Your task to perform on an android device: find which apps use the phone's location Image 0: 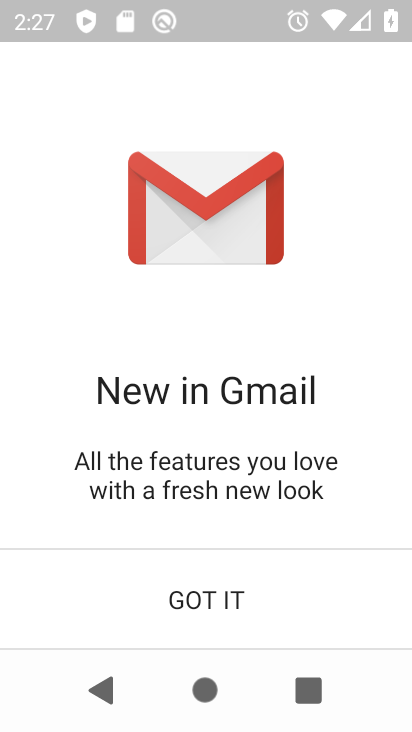
Step 0: press home button
Your task to perform on an android device: find which apps use the phone's location Image 1: 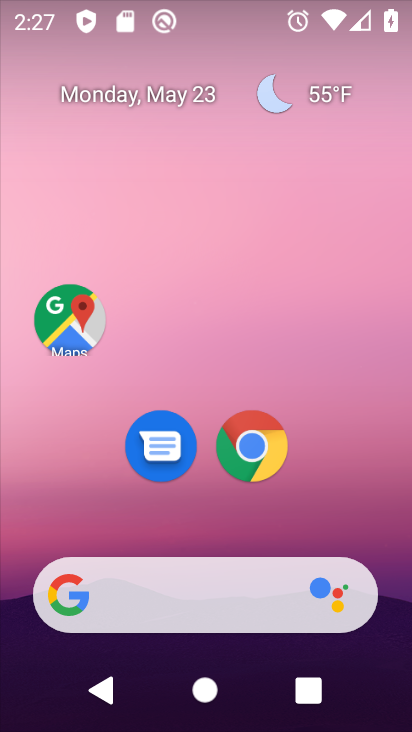
Step 1: drag from (192, 532) to (194, 149)
Your task to perform on an android device: find which apps use the phone's location Image 2: 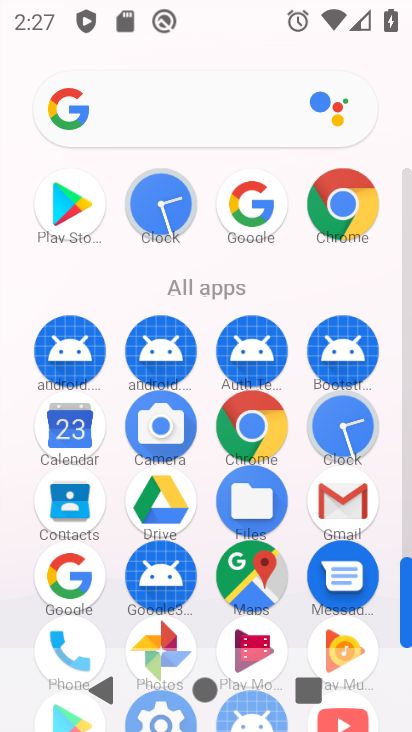
Step 2: drag from (199, 545) to (175, 234)
Your task to perform on an android device: find which apps use the phone's location Image 3: 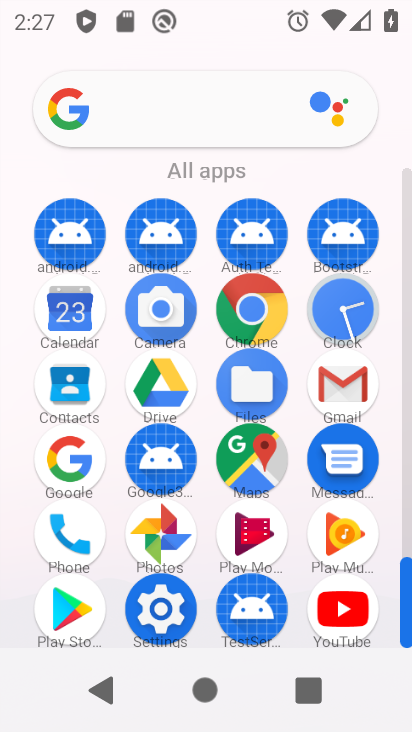
Step 3: click (172, 610)
Your task to perform on an android device: find which apps use the phone's location Image 4: 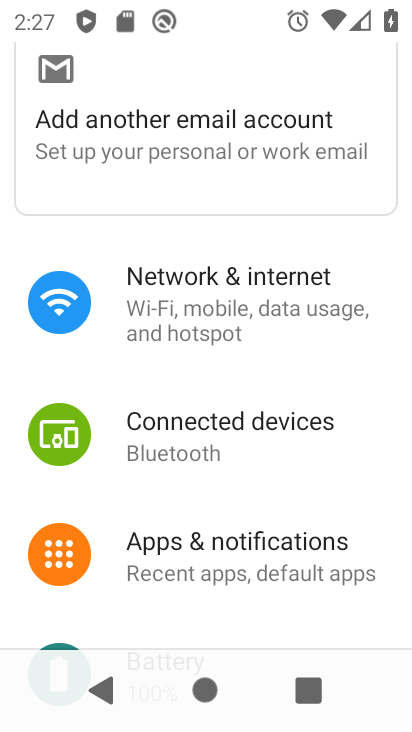
Step 4: drag from (279, 556) to (239, 279)
Your task to perform on an android device: find which apps use the phone's location Image 5: 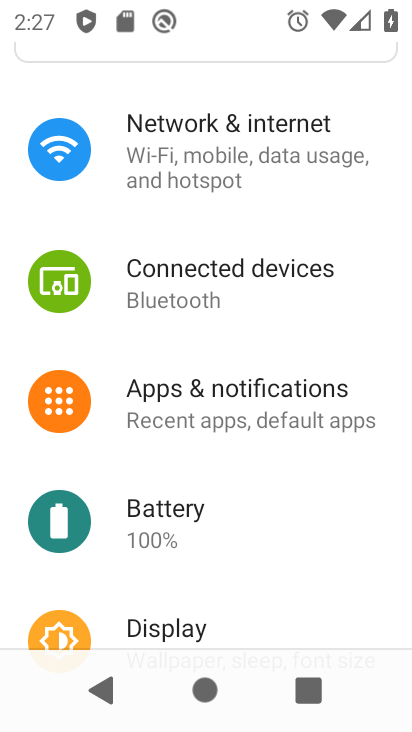
Step 5: drag from (220, 575) to (217, 341)
Your task to perform on an android device: find which apps use the phone's location Image 6: 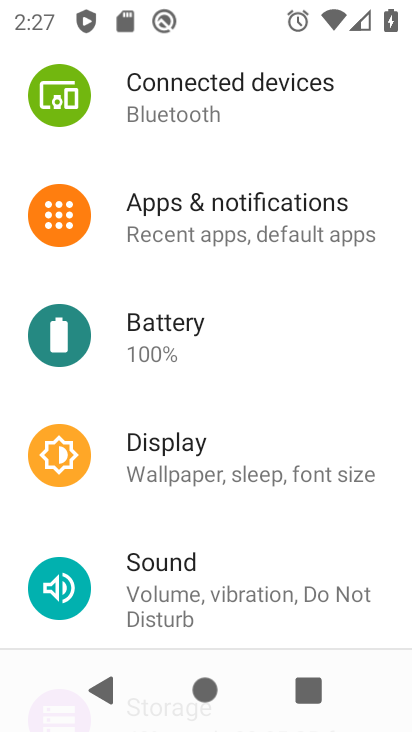
Step 6: drag from (199, 588) to (208, 358)
Your task to perform on an android device: find which apps use the phone's location Image 7: 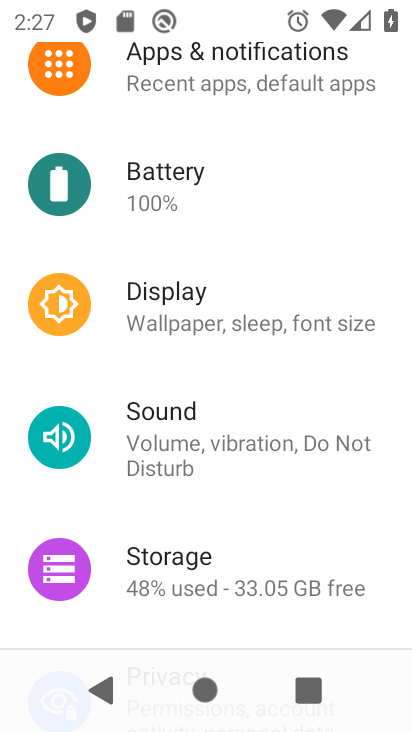
Step 7: drag from (208, 550) to (214, 371)
Your task to perform on an android device: find which apps use the phone's location Image 8: 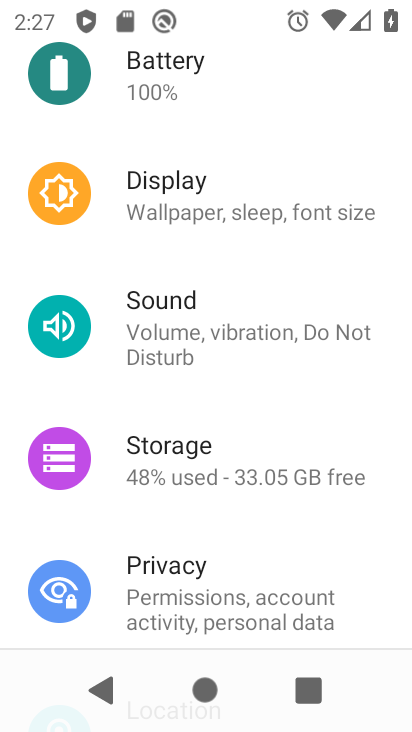
Step 8: drag from (214, 578) to (250, 309)
Your task to perform on an android device: find which apps use the phone's location Image 9: 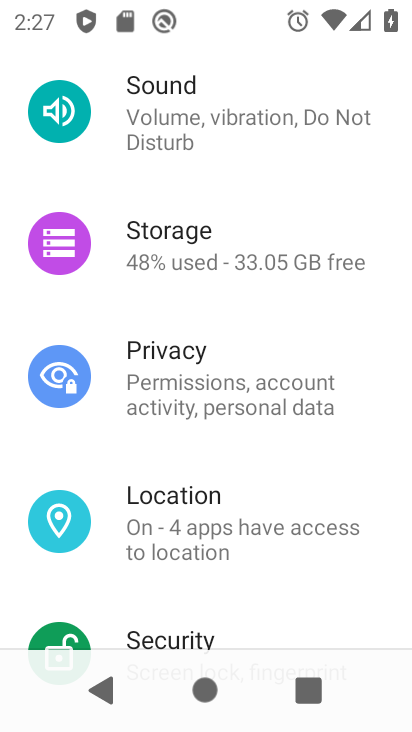
Step 9: click (257, 512)
Your task to perform on an android device: find which apps use the phone's location Image 10: 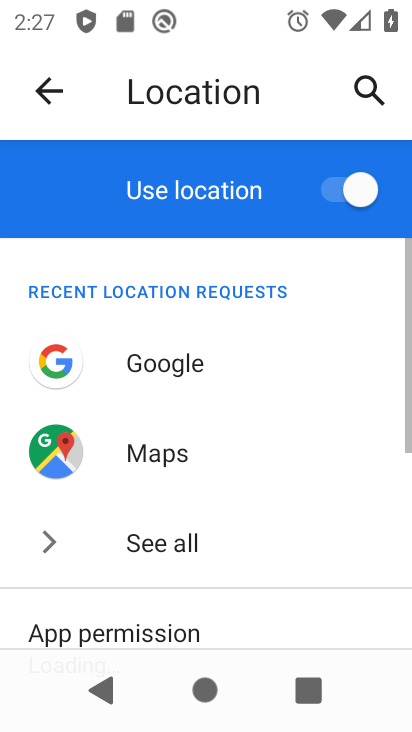
Step 10: drag from (281, 543) to (208, 230)
Your task to perform on an android device: find which apps use the phone's location Image 11: 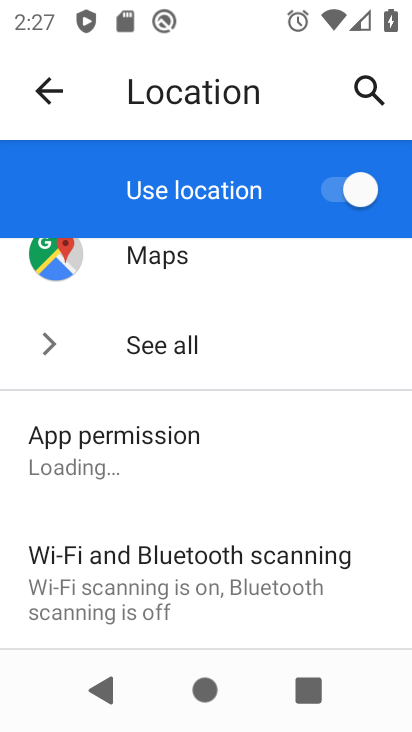
Step 11: drag from (191, 524) to (195, 381)
Your task to perform on an android device: find which apps use the phone's location Image 12: 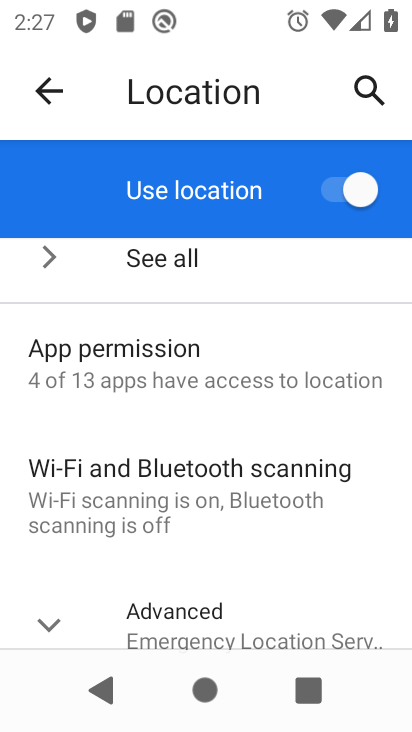
Step 12: click (174, 373)
Your task to perform on an android device: find which apps use the phone's location Image 13: 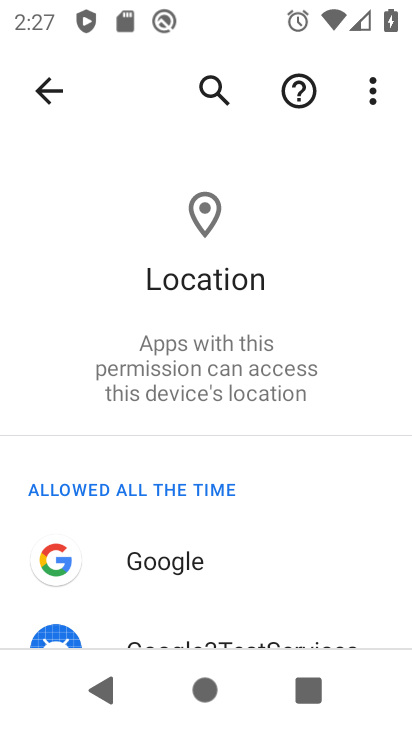
Step 13: task complete